Your task to perform on an android device: turn off translation in the chrome app Image 0: 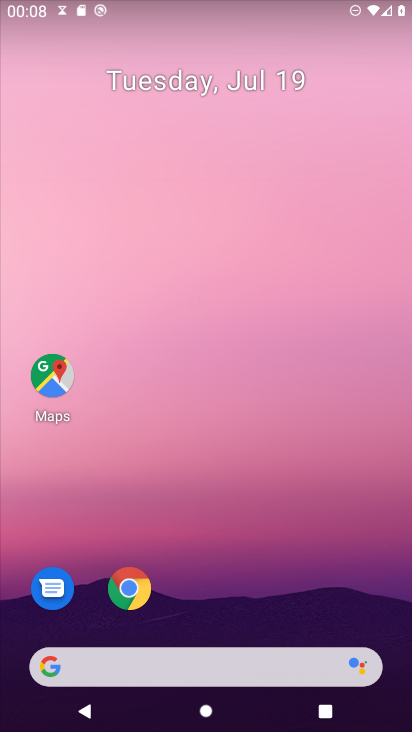
Step 0: press home button
Your task to perform on an android device: turn off translation in the chrome app Image 1: 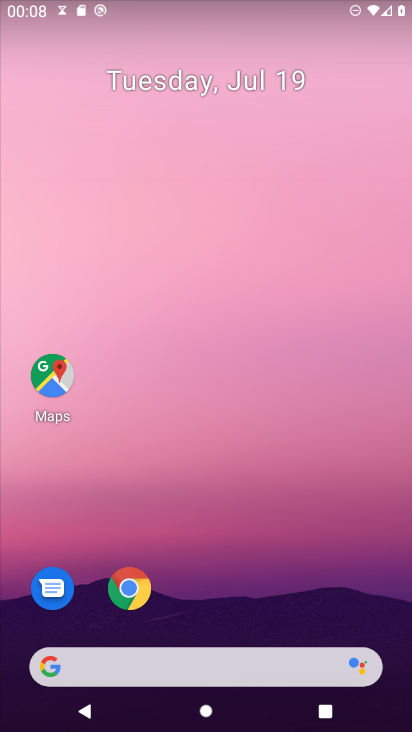
Step 1: click (136, 585)
Your task to perform on an android device: turn off translation in the chrome app Image 2: 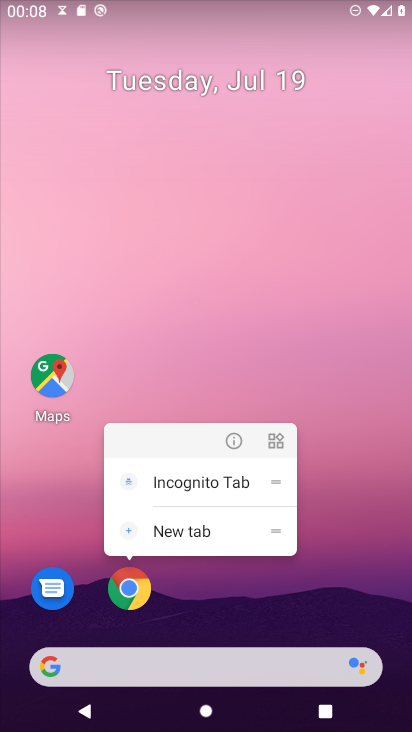
Step 2: click (136, 585)
Your task to perform on an android device: turn off translation in the chrome app Image 3: 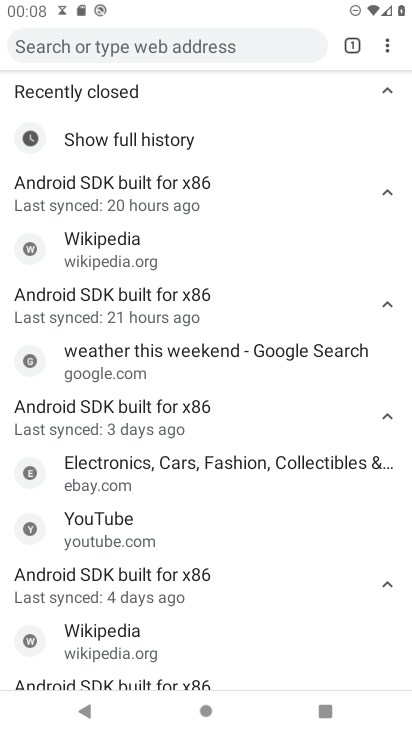
Step 3: drag from (386, 45) to (262, 380)
Your task to perform on an android device: turn off translation in the chrome app Image 4: 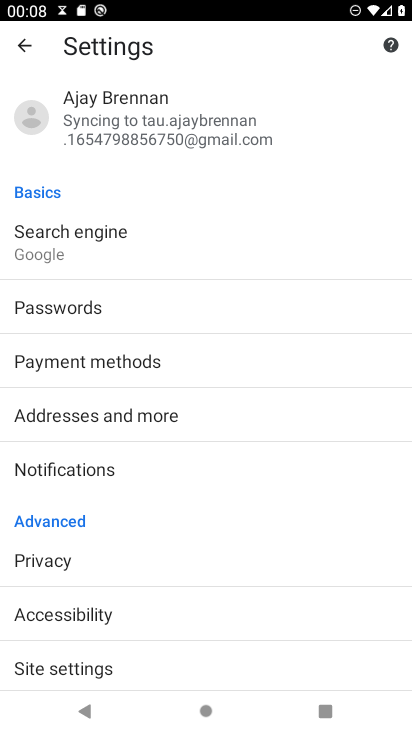
Step 4: drag from (248, 670) to (259, 265)
Your task to perform on an android device: turn off translation in the chrome app Image 5: 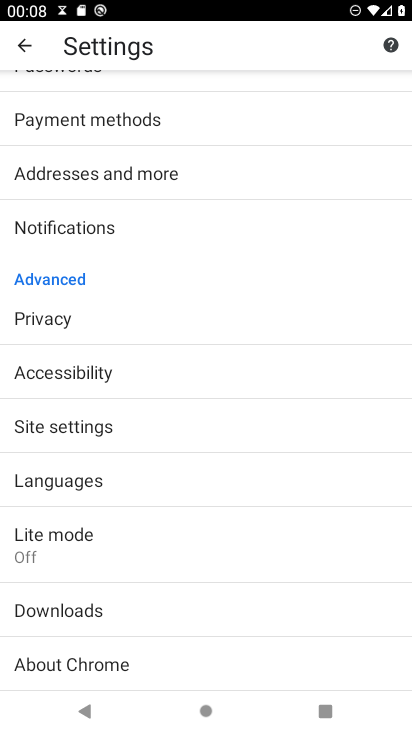
Step 5: click (100, 479)
Your task to perform on an android device: turn off translation in the chrome app Image 6: 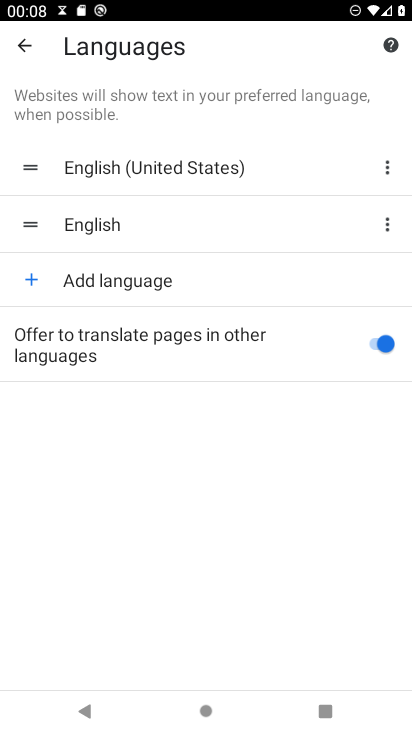
Step 6: click (383, 343)
Your task to perform on an android device: turn off translation in the chrome app Image 7: 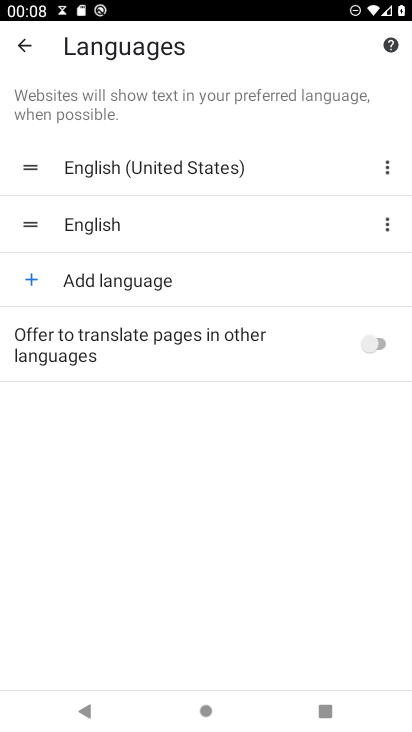
Step 7: task complete